Your task to perform on an android device: toggle data saver in the chrome app Image 0: 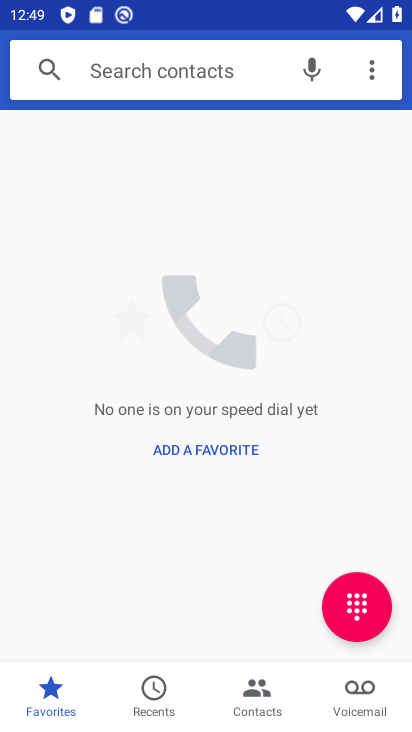
Step 0: press home button
Your task to perform on an android device: toggle data saver in the chrome app Image 1: 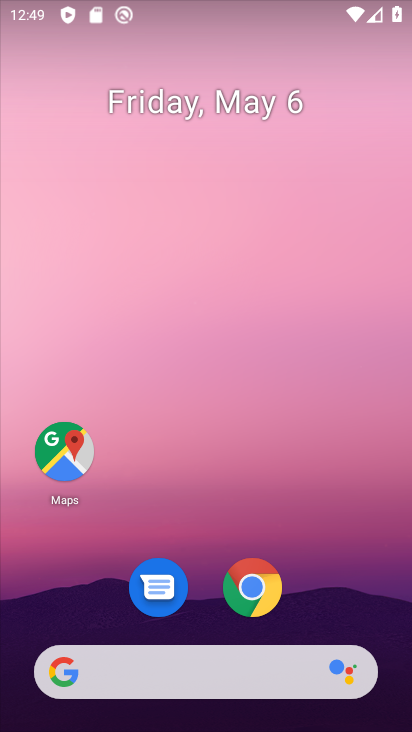
Step 1: click (260, 585)
Your task to perform on an android device: toggle data saver in the chrome app Image 2: 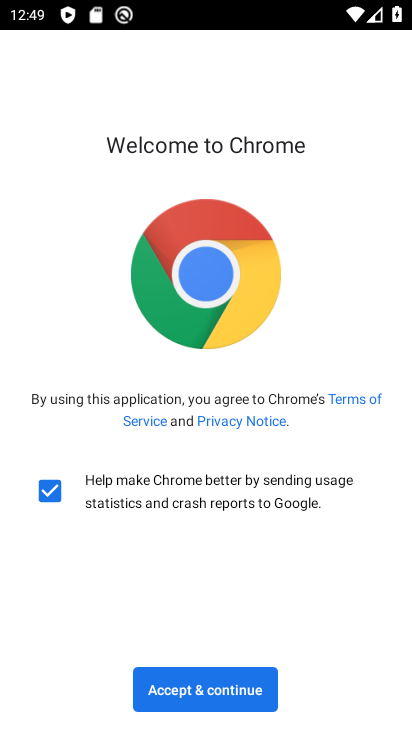
Step 2: click (188, 684)
Your task to perform on an android device: toggle data saver in the chrome app Image 3: 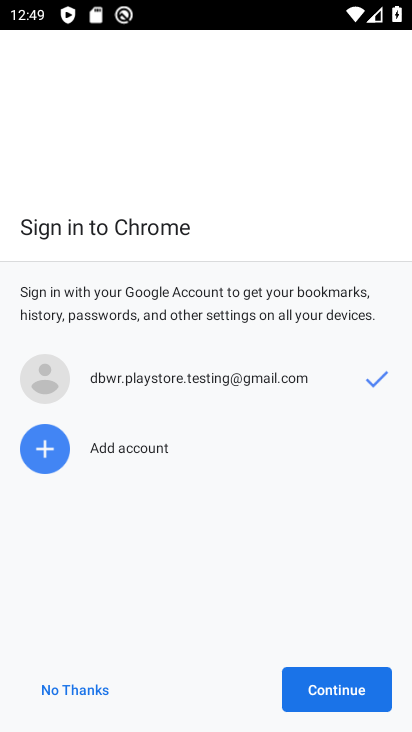
Step 3: click (321, 685)
Your task to perform on an android device: toggle data saver in the chrome app Image 4: 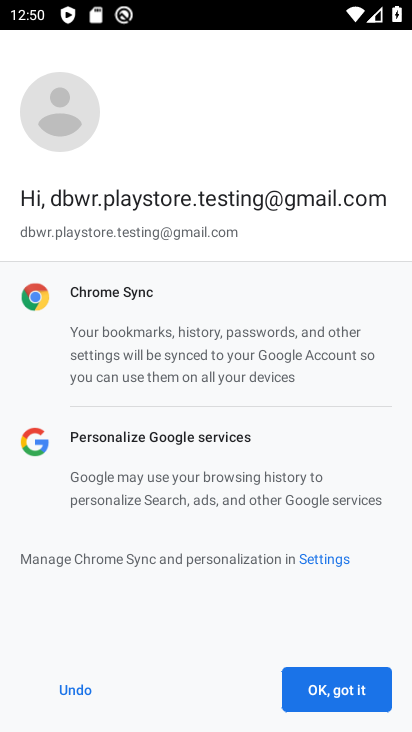
Step 4: click (321, 685)
Your task to perform on an android device: toggle data saver in the chrome app Image 5: 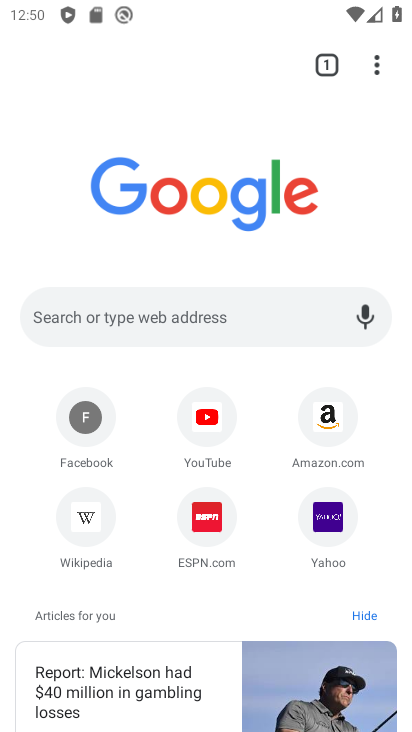
Step 5: click (371, 73)
Your task to perform on an android device: toggle data saver in the chrome app Image 6: 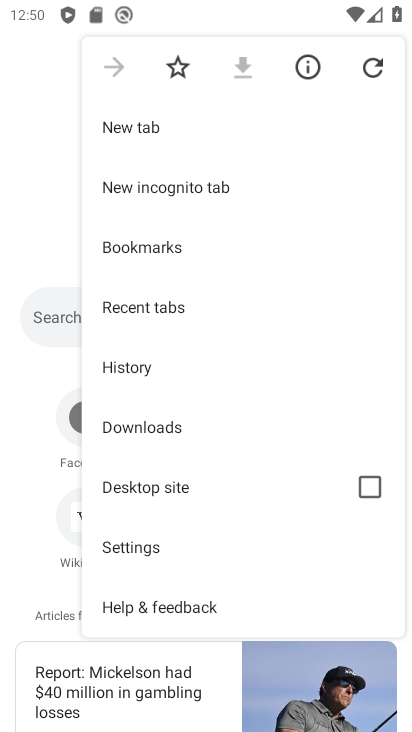
Step 6: click (179, 536)
Your task to perform on an android device: toggle data saver in the chrome app Image 7: 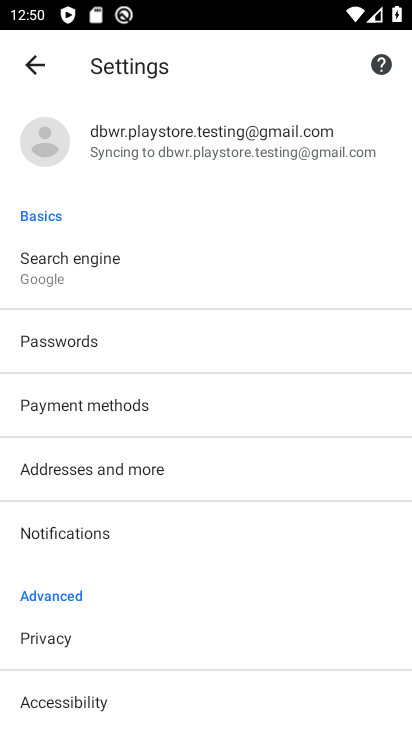
Step 7: drag from (186, 548) to (142, 219)
Your task to perform on an android device: toggle data saver in the chrome app Image 8: 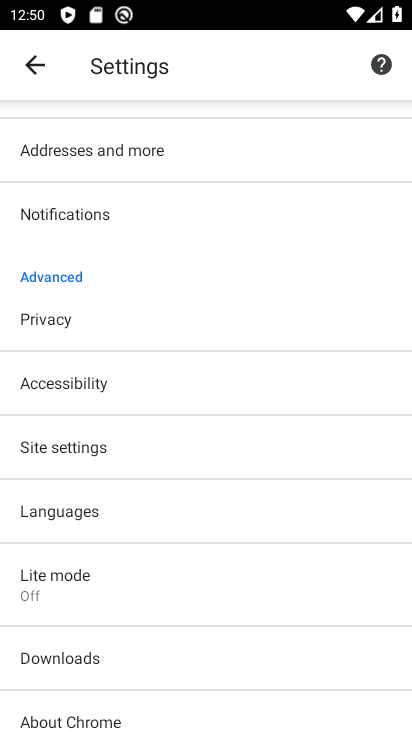
Step 8: click (180, 581)
Your task to perform on an android device: toggle data saver in the chrome app Image 9: 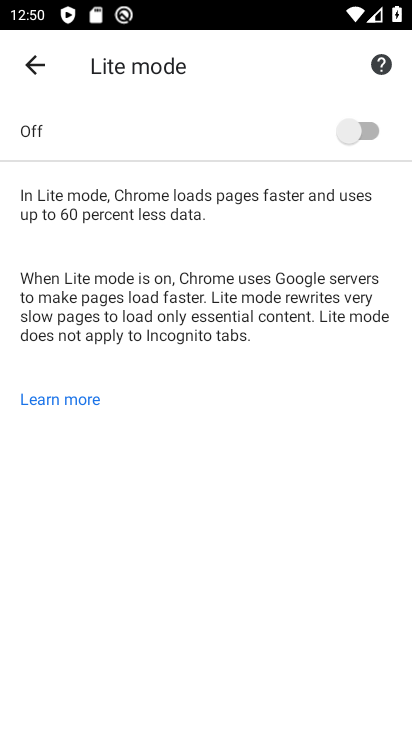
Step 9: click (355, 136)
Your task to perform on an android device: toggle data saver in the chrome app Image 10: 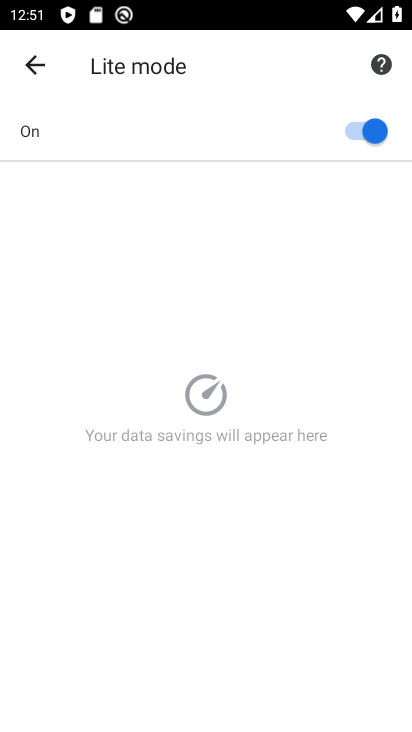
Step 10: task complete